Your task to perform on an android device: turn on sleep mode Image 0: 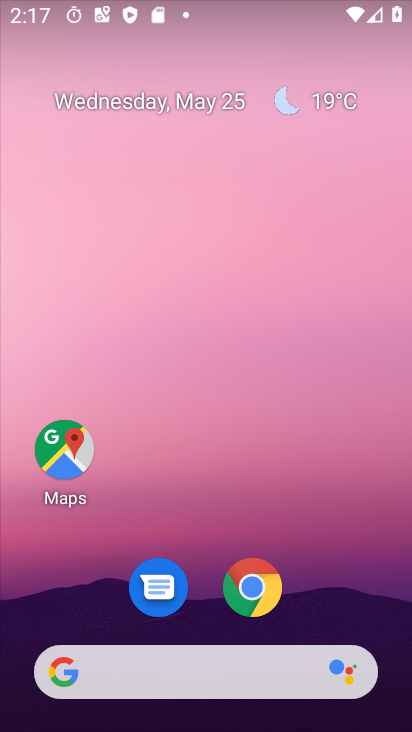
Step 0: drag from (204, 605) to (280, 65)
Your task to perform on an android device: turn on sleep mode Image 1: 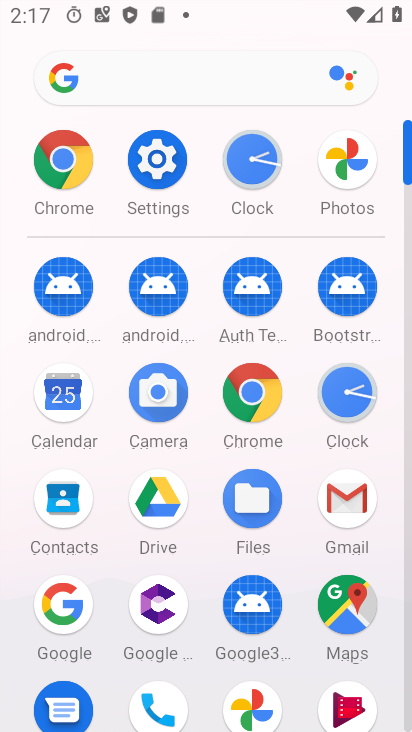
Step 1: click (164, 153)
Your task to perform on an android device: turn on sleep mode Image 2: 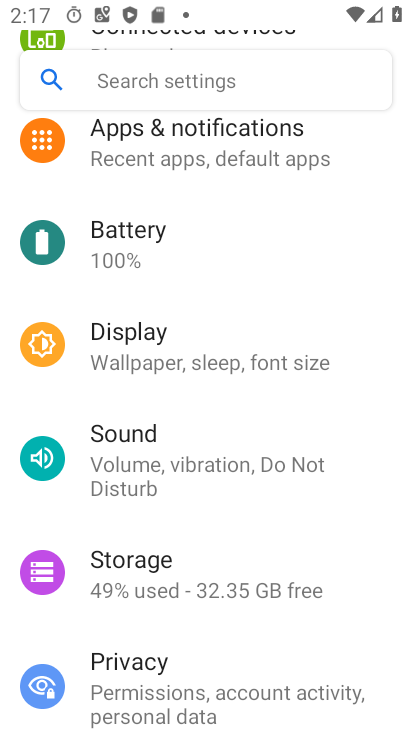
Step 2: drag from (173, 216) to (165, 417)
Your task to perform on an android device: turn on sleep mode Image 3: 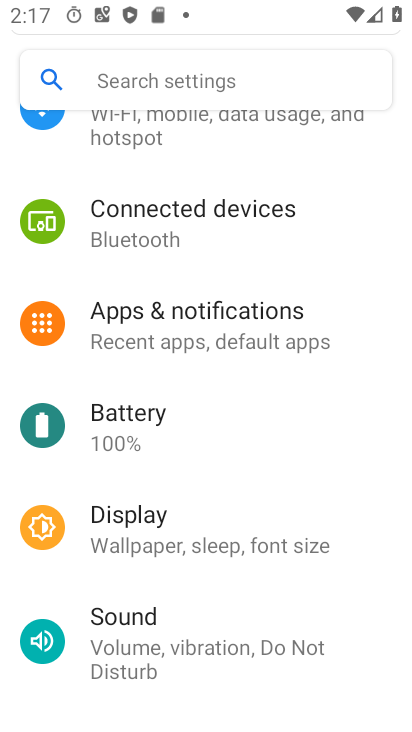
Step 3: drag from (154, 266) to (164, 384)
Your task to perform on an android device: turn on sleep mode Image 4: 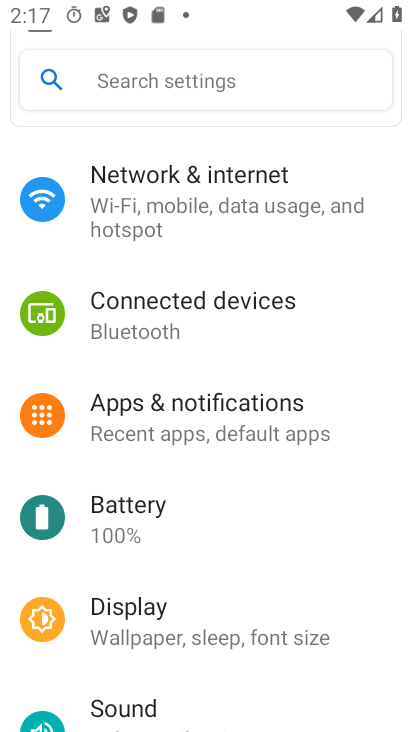
Step 4: drag from (155, 518) to (191, 330)
Your task to perform on an android device: turn on sleep mode Image 5: 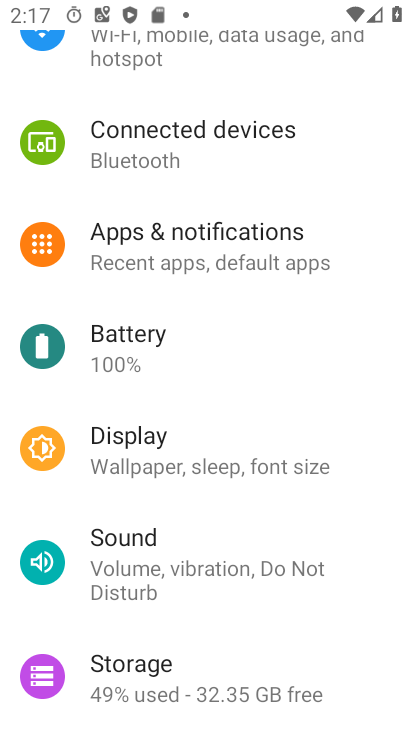
Step 5: drag from (224, 616) to (231, 488)
Your task to perform on an android device: turn on sleep mode Image 6: 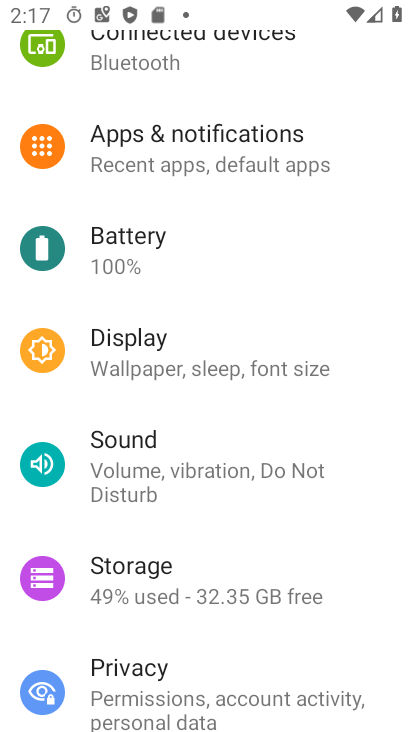
Step 6: click (170, 350)
Your task to perform on an android device: turn on sleep mode Image 7: 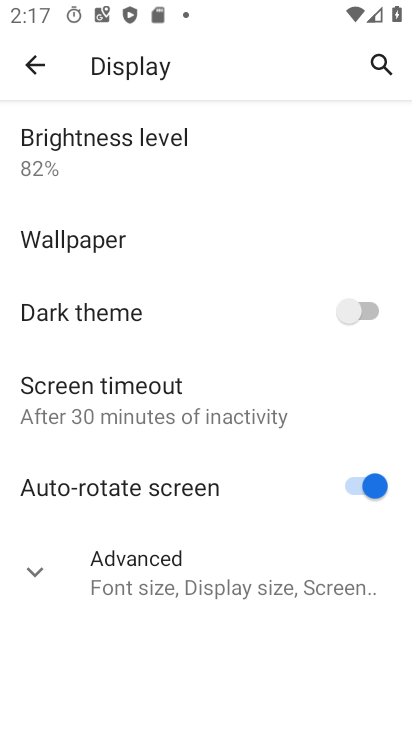
Step 7: click (140, 400)
Your task to perform on an android device: turn on sleep mode Image 8: 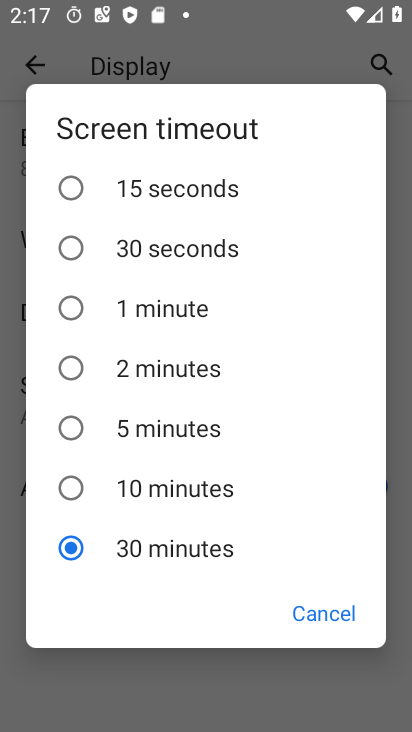
Step 8: task complete